Your task to perform on an android device: turn off sleep mode Image 0: 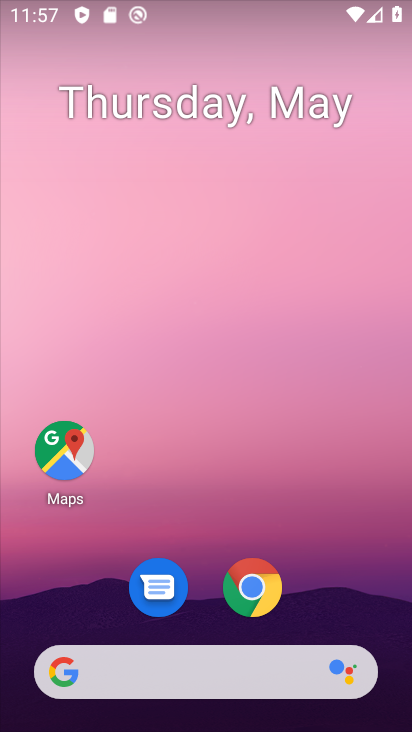
Step 0: drag from (188, 616) to (284, 120)
Your task to perform on an android device: turn off sleep mode Image 1: 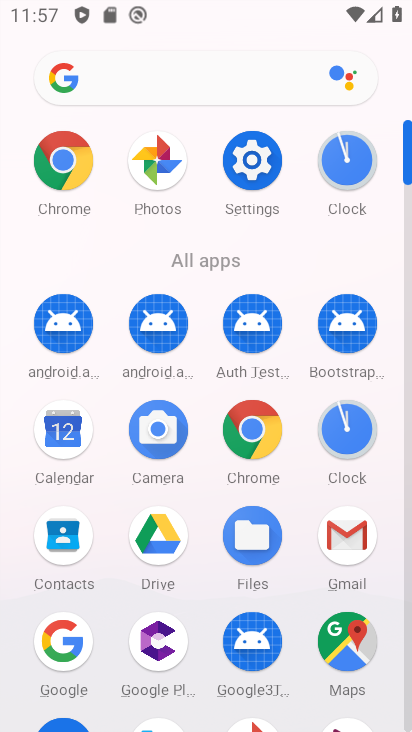
Step 1: click (250, 145)
Your task to perform on an android device: turn off sleep mode Image 2: 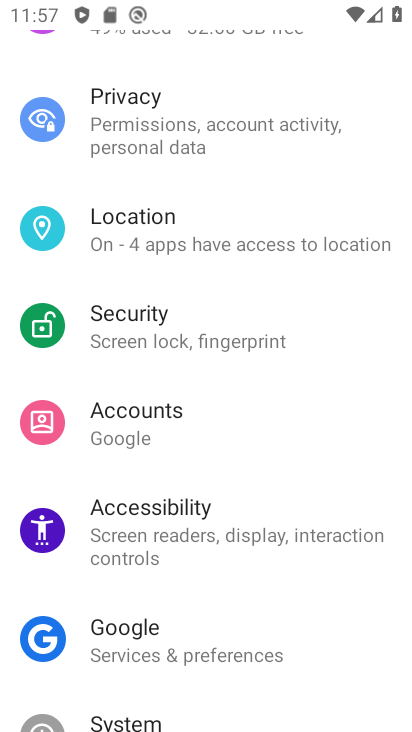
Step 2: drag from (213, 146) to (212, 646)
Your task to perform on an android device: turn off sleep mode Image 3: 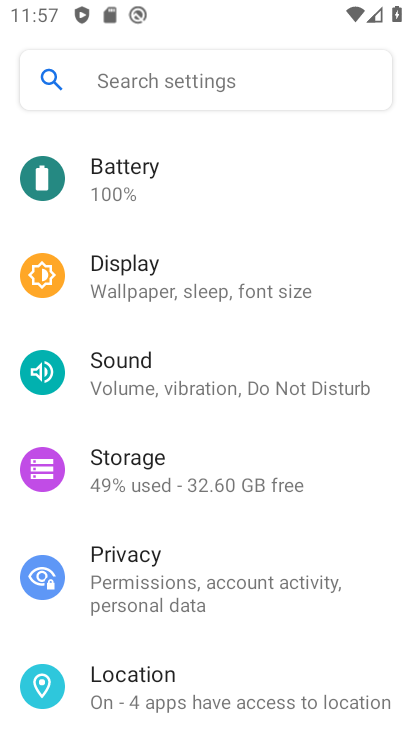
Step 3: click (130, 84)
Your task to perform on an android device: turn off sleep mode Image 4: 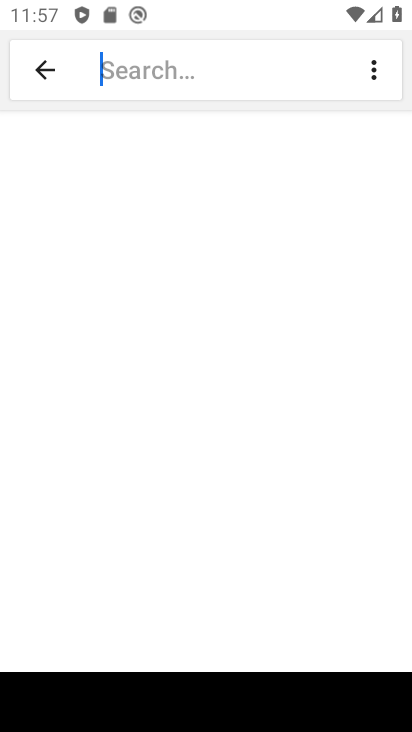
Step 4: type "sleep mode"
Your task to perform on an android device: turn off sleep mode Image 5: 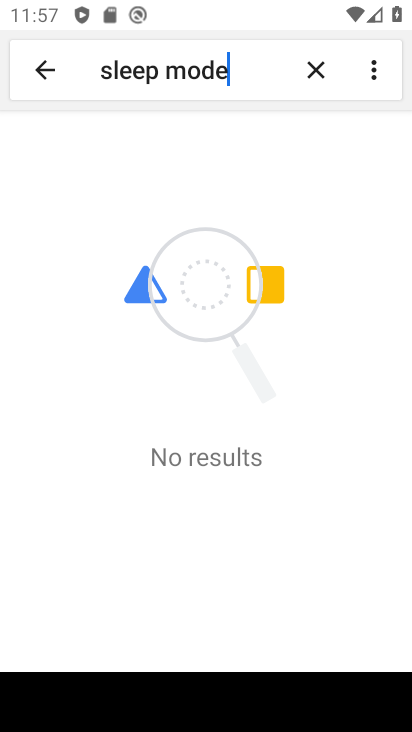
Step 5: task complete